Your task to perform on an android device: turn on airplane mode Image 0: 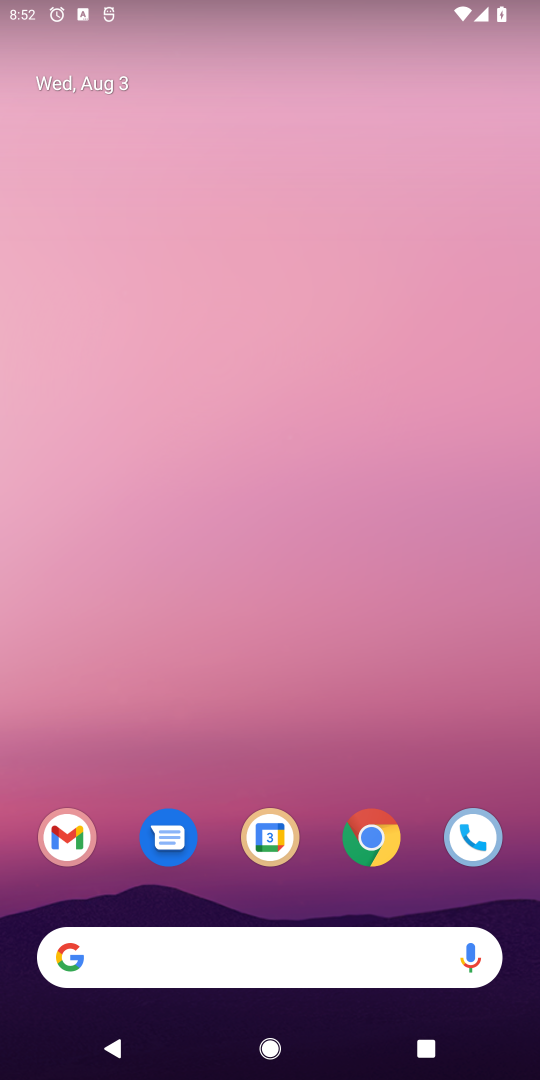
Step 0: drag from (342, 3) to (390, 843)
Your task to perform on an android device: turn on airplane mode Image 1: 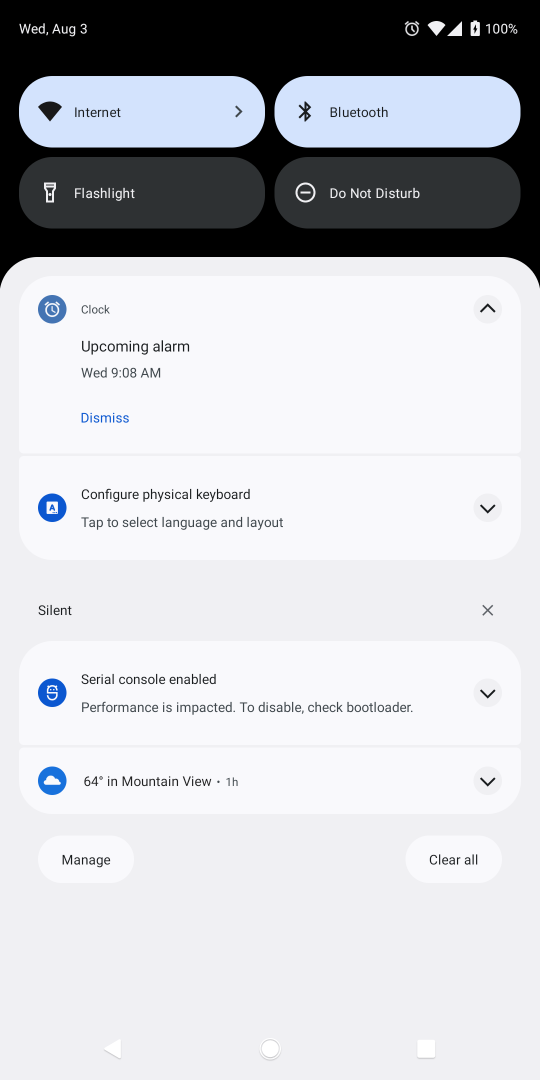
Step 1: drag from (296, 309) to (184, 1078)
Your task to perform on an android device: turn on airplane mode Image 2: 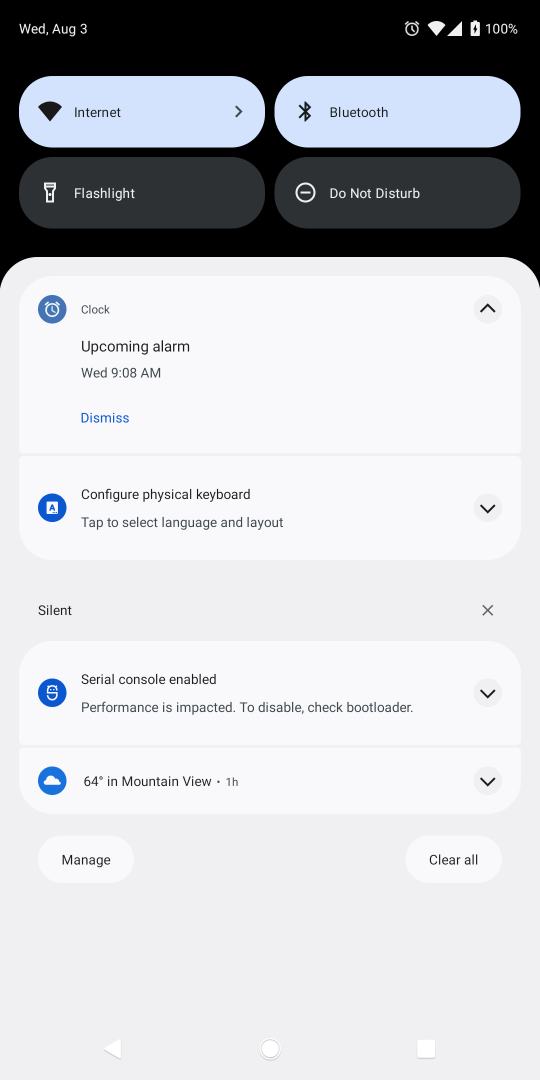
Step 2: drag from (449, 176) to (470, 1074)
Your task to perform on an android device: turn on airplane mode Image 3: 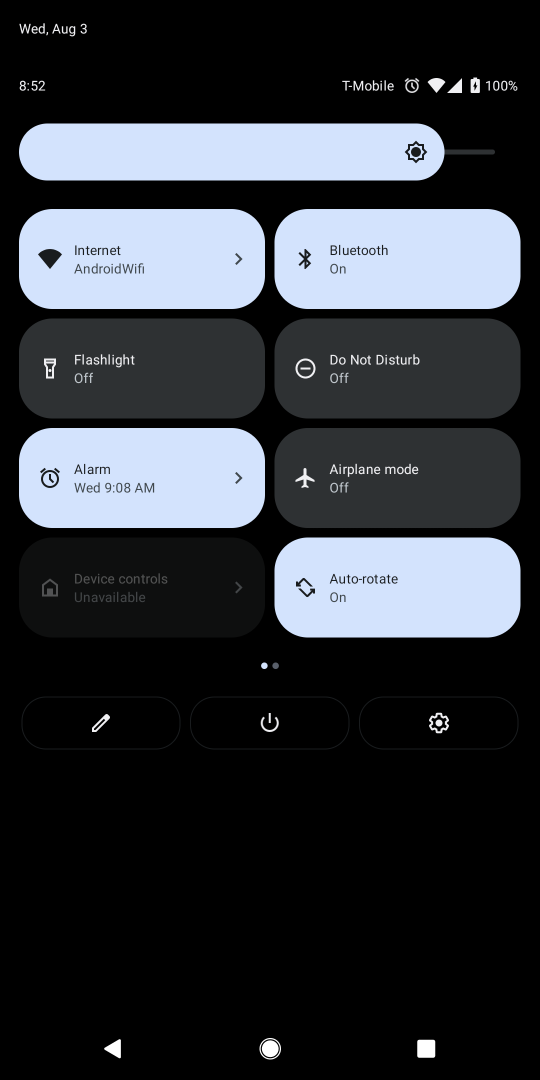
Step 3: click (353, 481)
Your task to perform on an android device: turn on airplane mode Image 4: 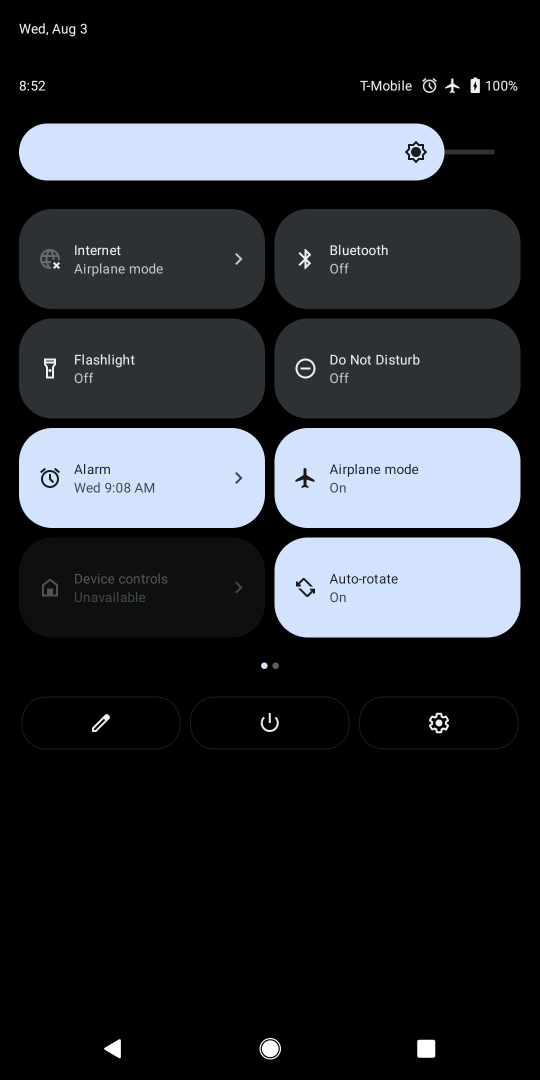
Step 4: task complete